Your task to perform on an android device: check google app version Image 0: 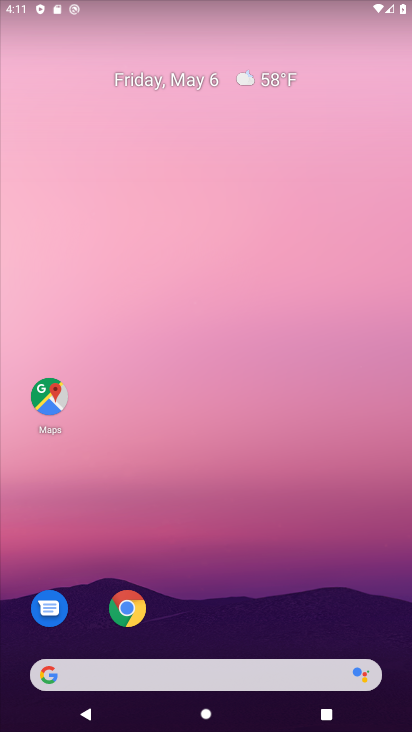
Step 0: drag from (166, 657) to (306, 61)
Your task to perform on an android device: check google app version Image 1: 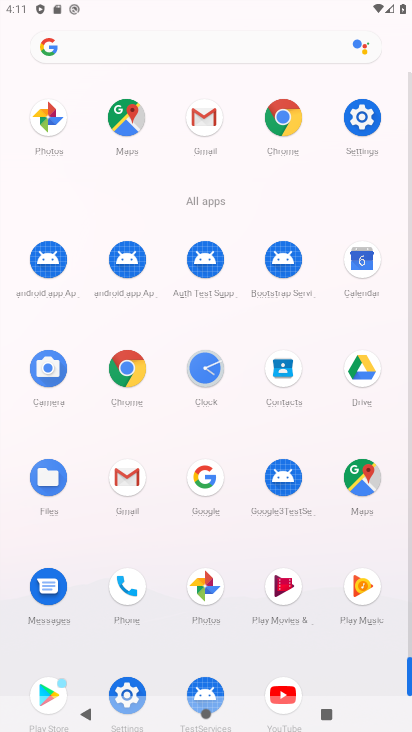
Step 1: drag from (229, 609) to (297, 327)
Your task to perform on an android device: check google app version Image 2: 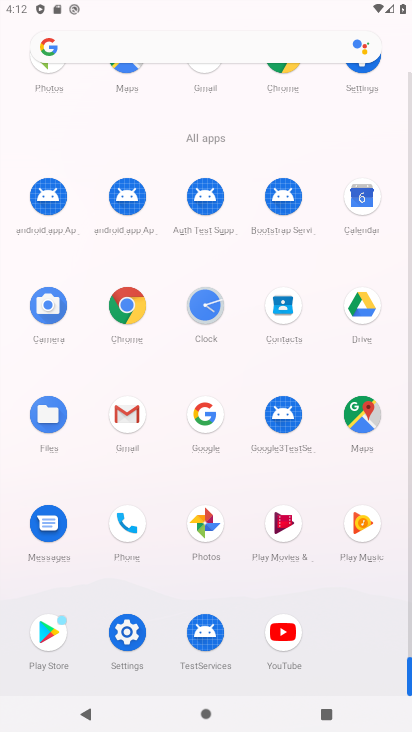
Step 2: click (136, 637)
Your task to perform on an android device: check google app version Image 3: 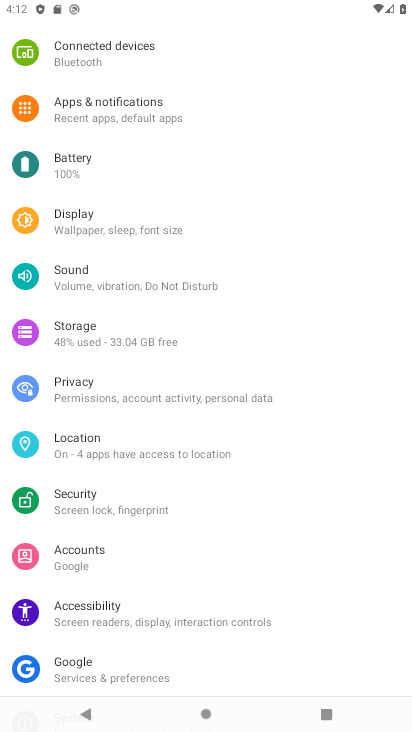
Step 3: drag from (168, 609) to (299, 218)
Your task to perform on an android device: check google app version Image 4: 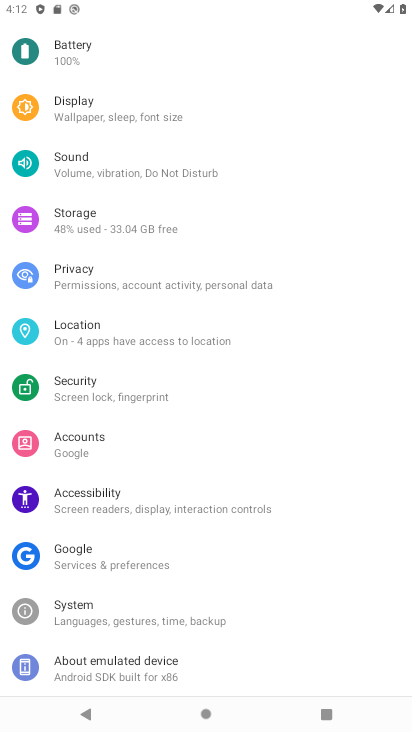
Step 4: drag from (155, 210) to (155, 517)
Your task to perform on an android device: check google app version Image 5: 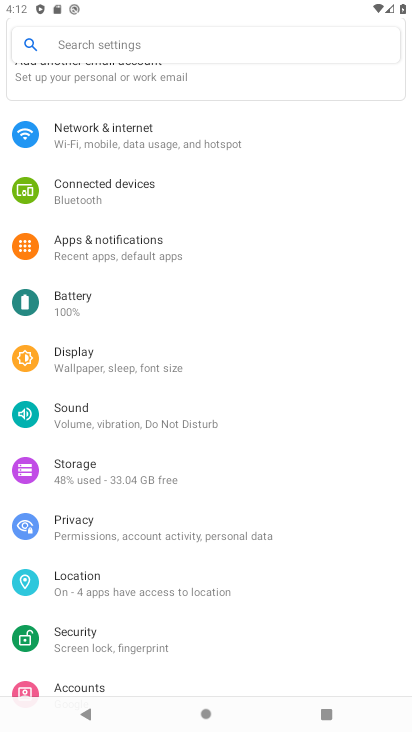
Step 5: click (141, 256)
Your task to perform on an android device: check google app version Image 6: 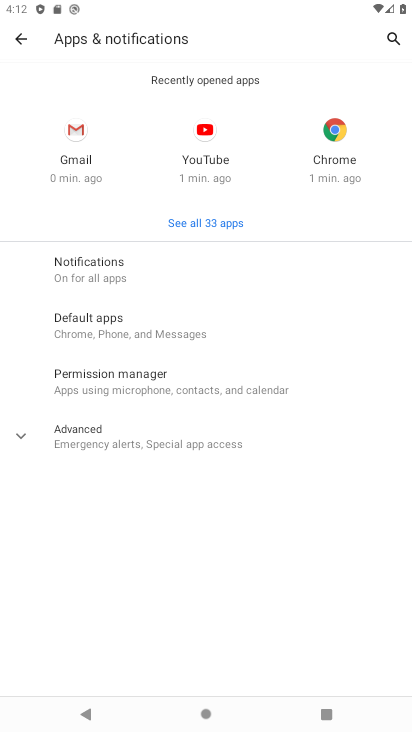
Step 6: click (206, 227)
Your task to perform on an android device: check google app version Image 7: 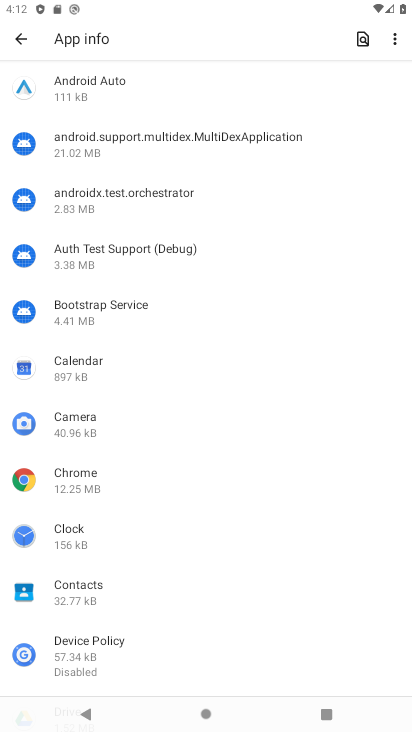
Step 7: drag from (158, 573) to (263, 182)
Your task to perform on an android device: check google app version Image 8: 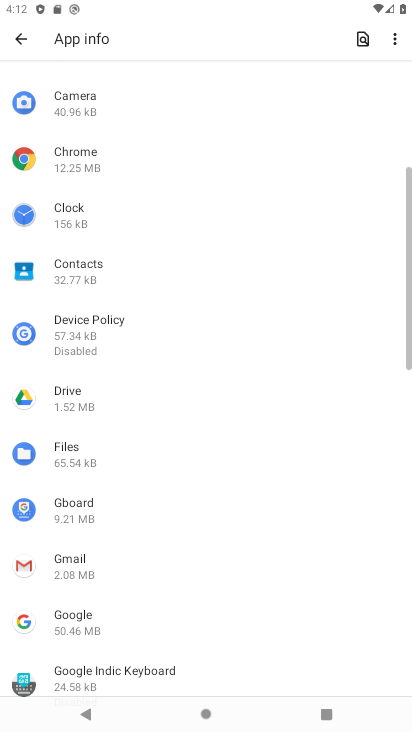
Step 8: click (75, 628)
Your task to perform on an android device: check google app version Image 9: 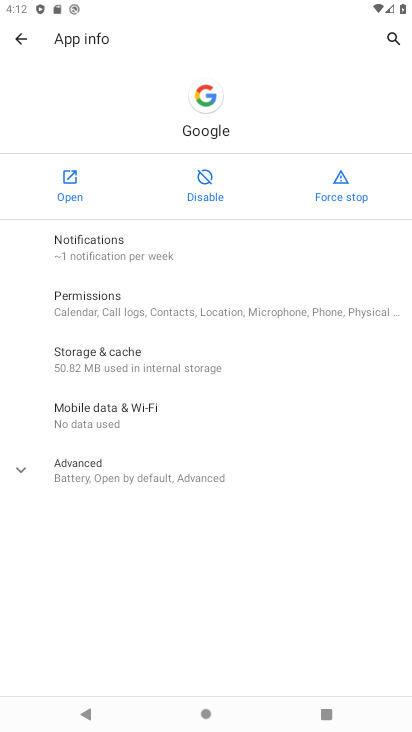
Step 9: click (155, 466)
Your task to perform on an android device: check google app version Image 10: 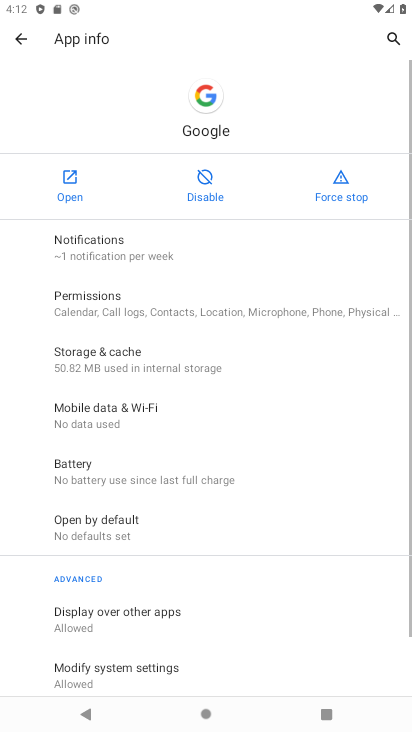
Step 10: task complete